Your task to perform on an android device: turn on showing notifications on the lock screen Image 0: 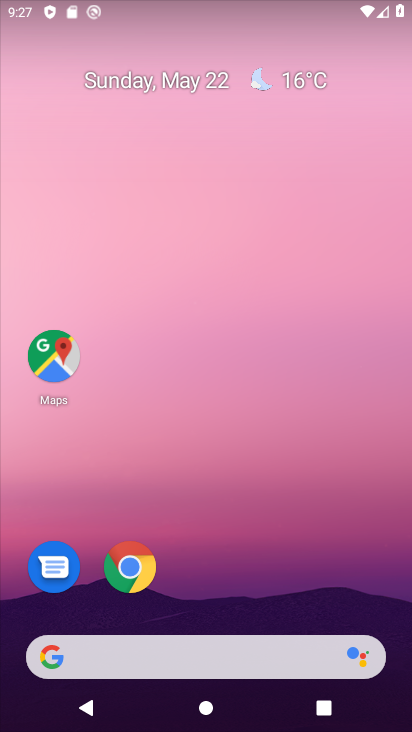
Step 0: drag from (248, 634) to (196, 1)
Your task to perform on an android device: turn on showing notifications on the lock screen Image 1: 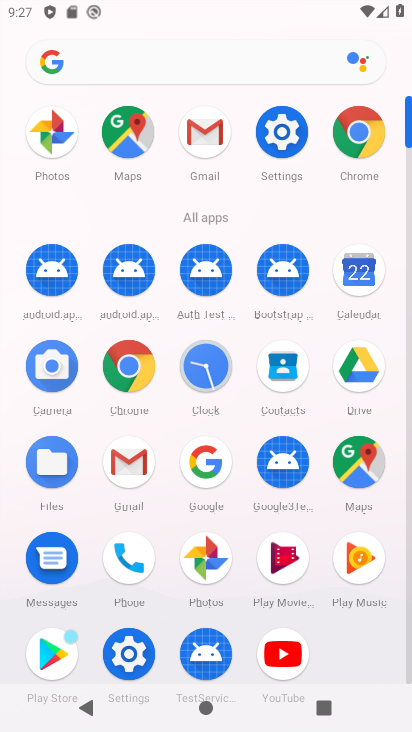
Step 1: click (133, 651)
Your task to perform on an android device: turn on showing notifications on the lock screen Image 2: 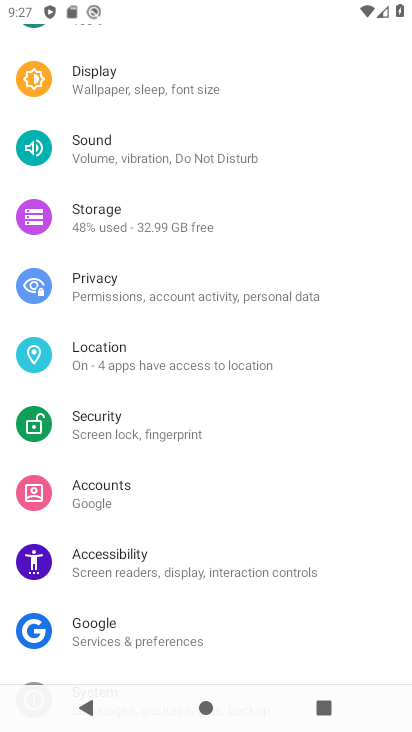
Step 2: drag from (163, 305) to (220, 718)
Your task to perform on an android device: turn on showing notifications on the lock screen Image 3: 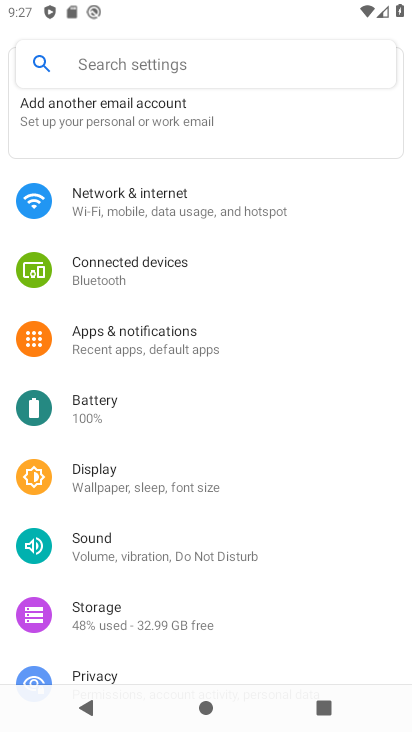
Step 3: click (170, 332)
Your task to perform on an android device: turn on showing notifications on the lock screen Image 4: 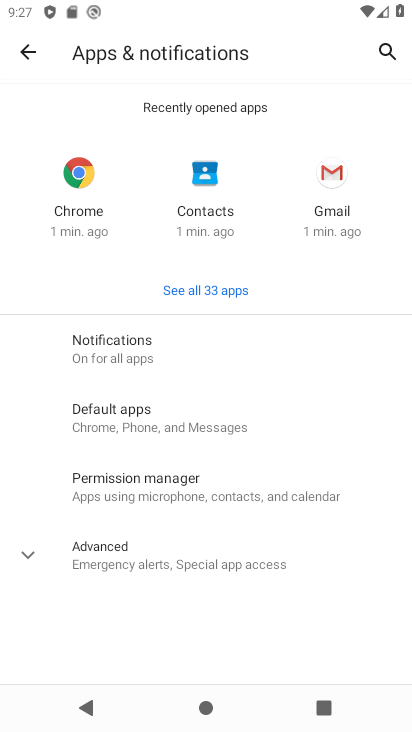
Step 4: click (122, 353)
Your task to perform on an android device: turn on showing notifications on the lock screen Image 5: 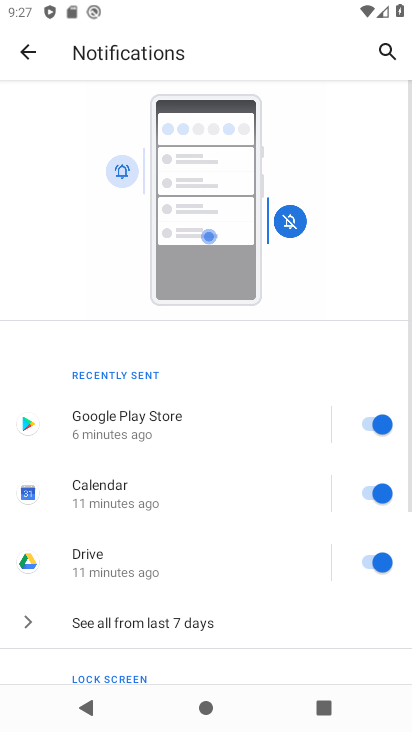
Step 5: drag from (204, 643) to (171, 335)
Your task to perform on an android device: turn on showing notifications on the lock screen Image 6: 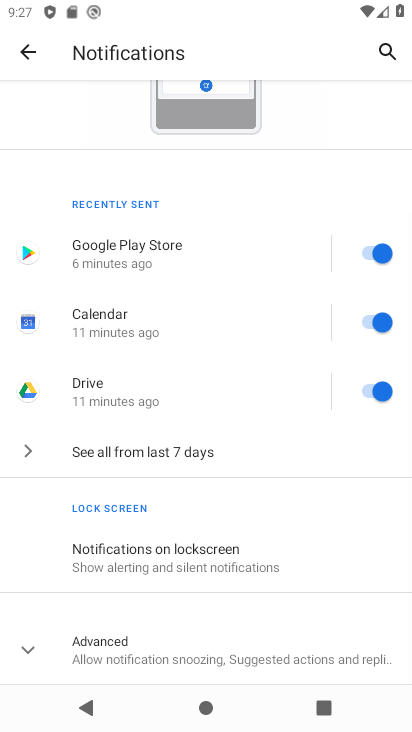
Step 6: click (198, 574)
Your task to perform on an android device: turn on showing notifications on the lock screen Image 7: 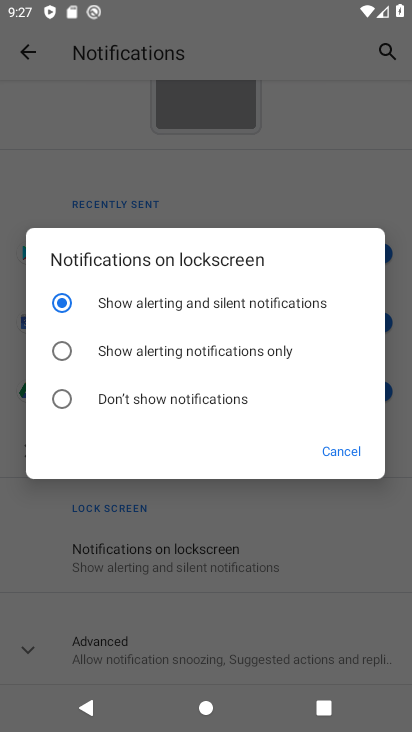
Step 7: click (155, 303)
Your task to perform on an android device: turn on showing notifications on the lock screen Image 8: 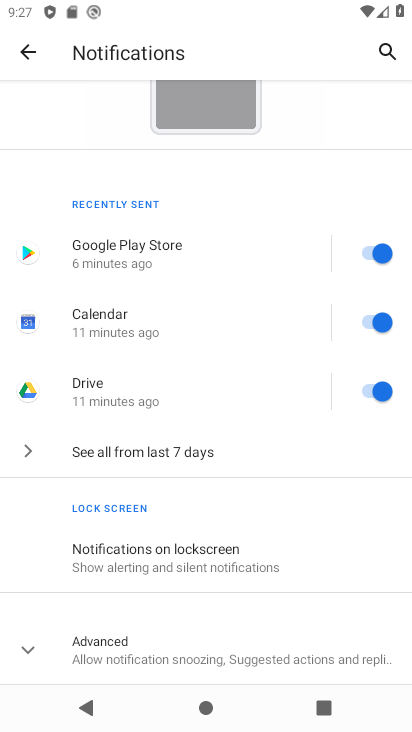
Step 8: task complete